Your task to perform on an android device: change keyboard looks Image 0: 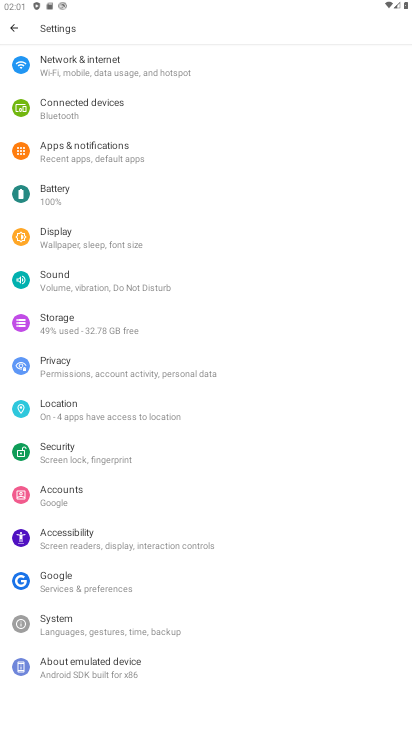
Step 0: click (200, 613)
Your task to perform on an android device: change keyboard looks Image 1: 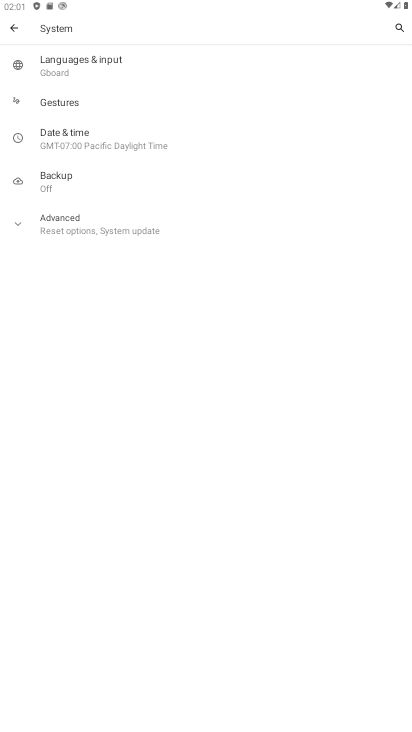
Step 1: click (125, 90)
Your task to perform on an android device: change keyboard looks Image 2: 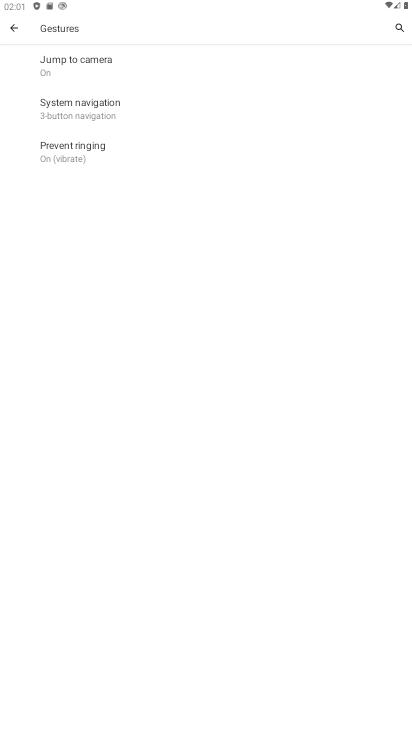
Step 2: click (17, 28)
Your task to perform on an android device: change keyboard looks Image 3: 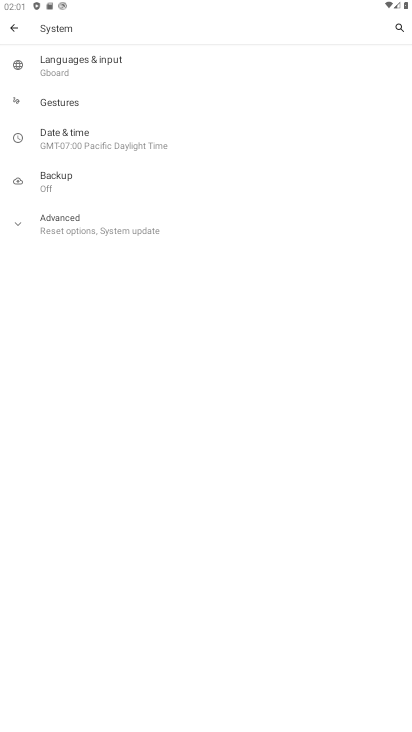
Step 3: click (69, 52)
Your task to perform on an android device: change keyboard looks Image 4: 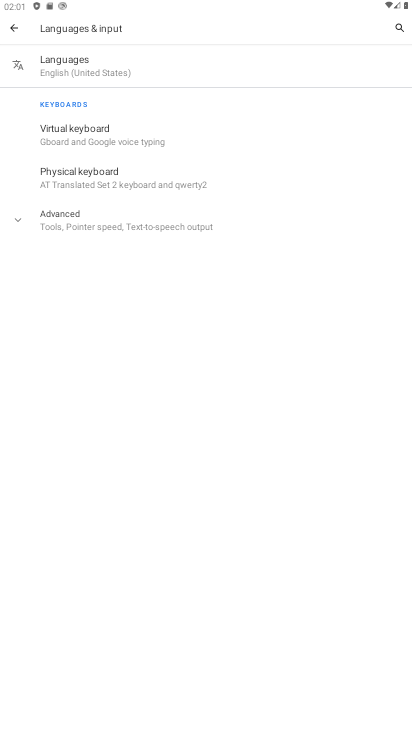
Step 4: click (134, 128)
Your task to perform on an android device: change keyboard looks Image 5: 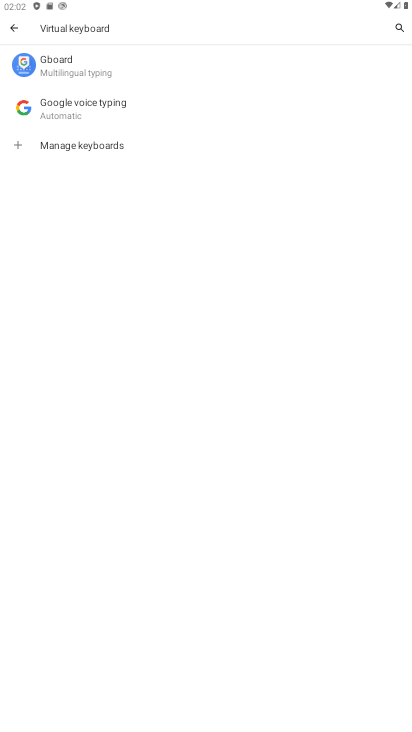
Step 5: click (89, 79)
Your task to perform on an android device: change keyboard looks Image 6: 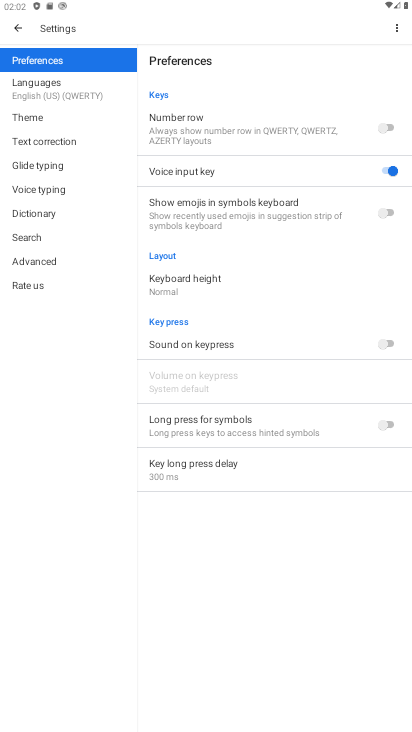
Step 6: task complete